Your task to perform on an android device: What's the US dollar exchange rate against the Canadian Dollar? Image 0: 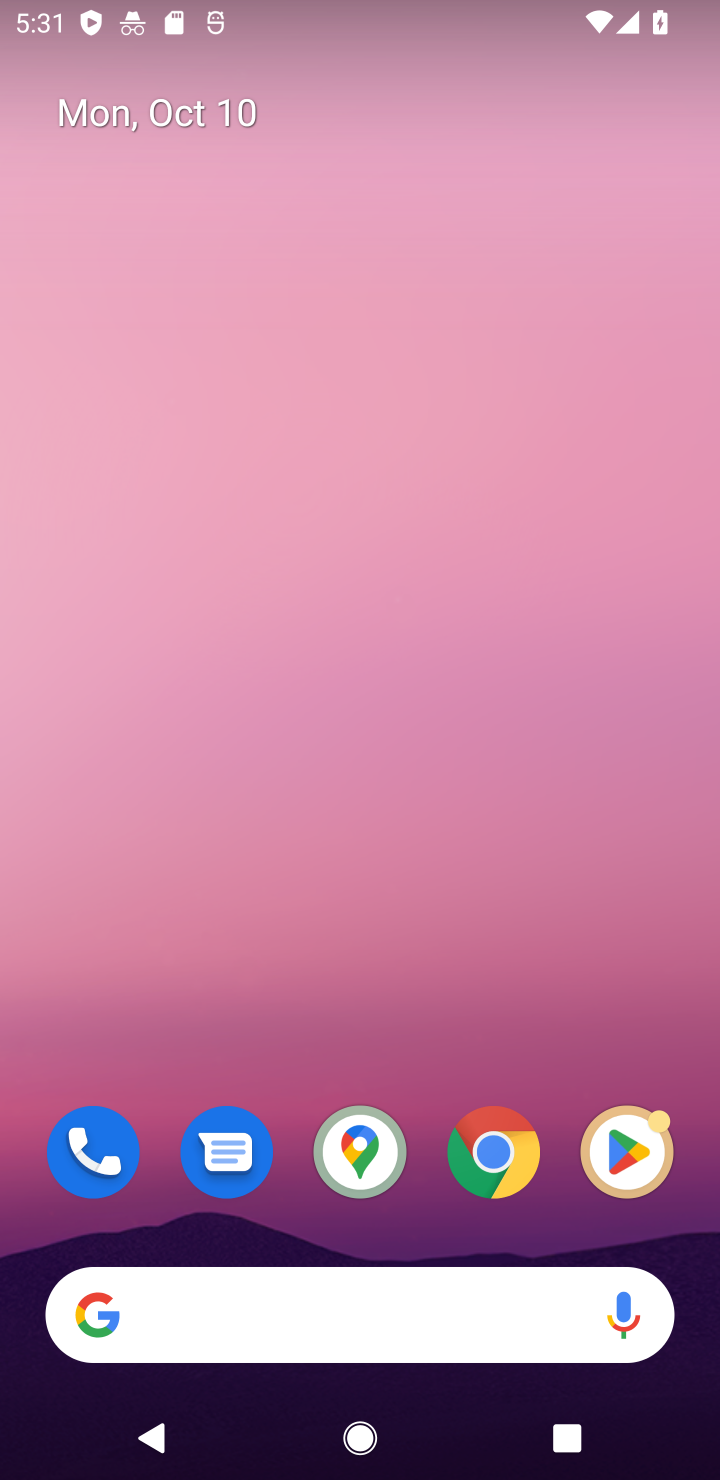
Step 0: click (502, 1157)
Your task to perform on an android device: What's the US dollar exchange rate against the Canadian Dollar? Image 1: 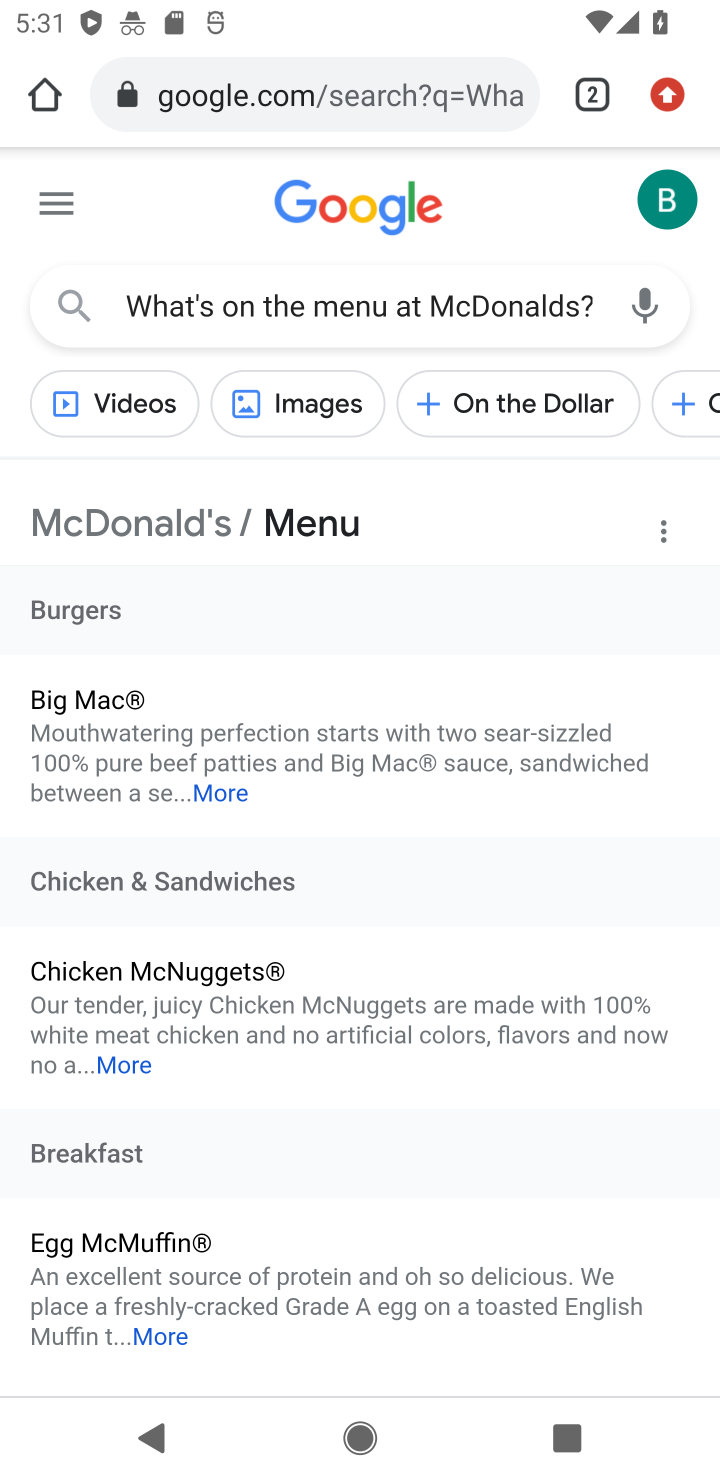
Step 1: click (466, 85)
Your task to perform on an android device: What's the US dollar exchange rate against the Canadian Dollar? Image 2: 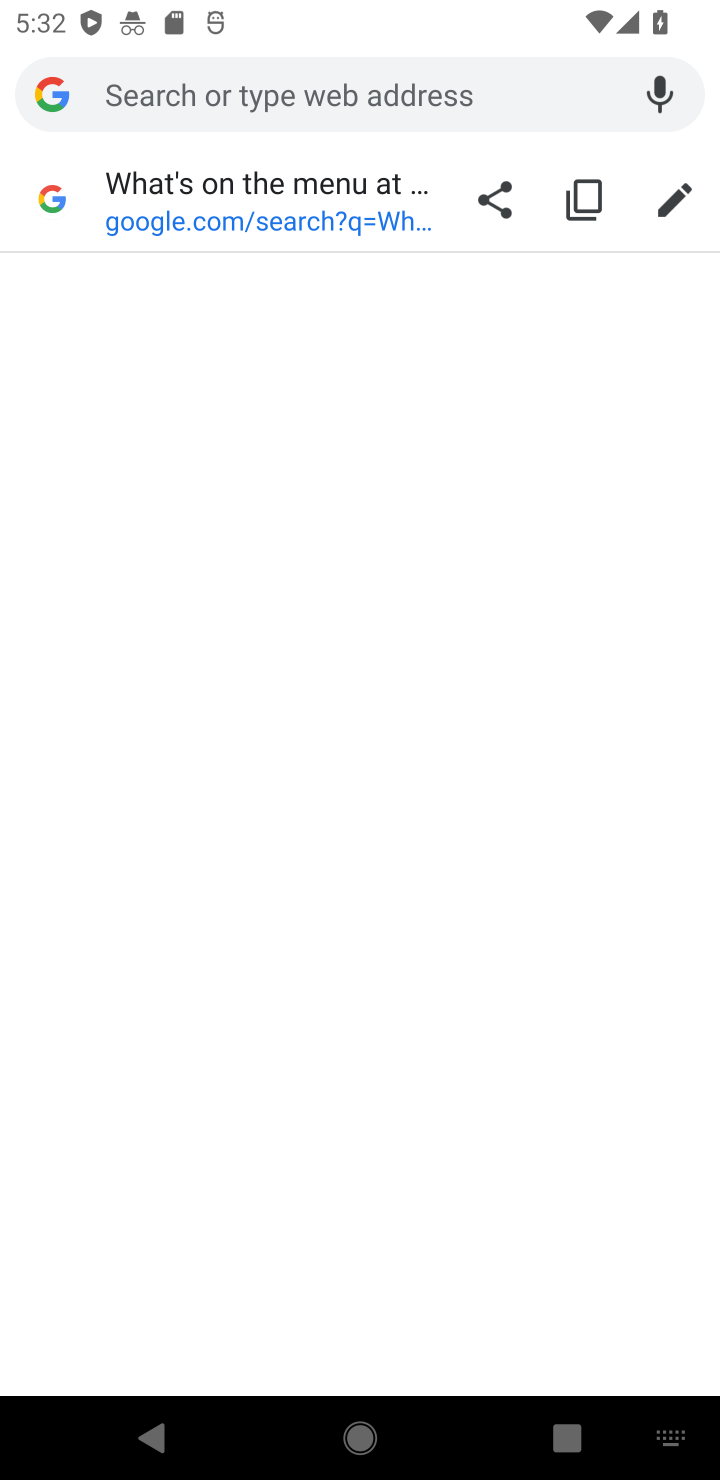
Step 2: type "What's the US dollar exchange rate against the Canadian Dollar?"
Your task to perform on an android device: What's the US dollar exchange rate against the Canadian Dollar? Image 3: 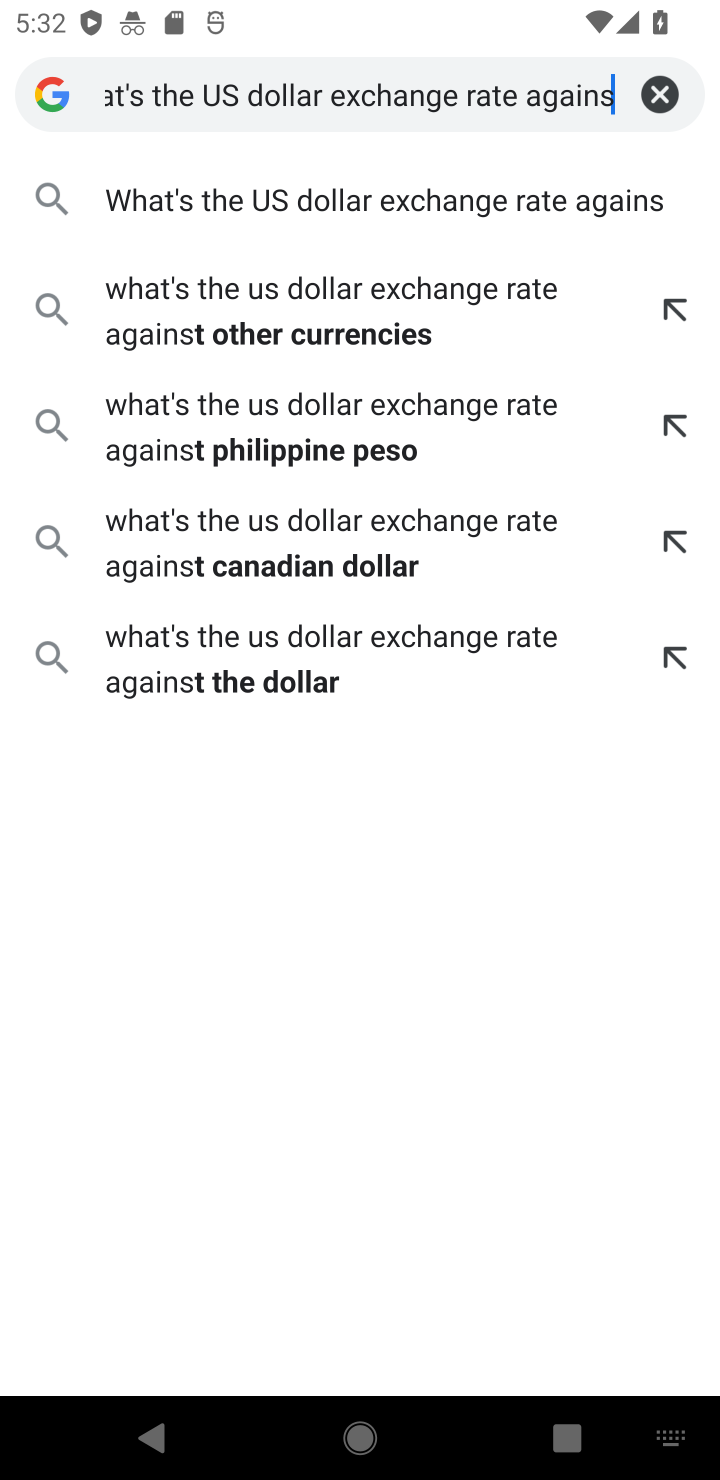
Step 3: click (404, 199)
Your task to perform on an android device: What's the US dollar exchange rate against the Canadian Dollar? Image 4: 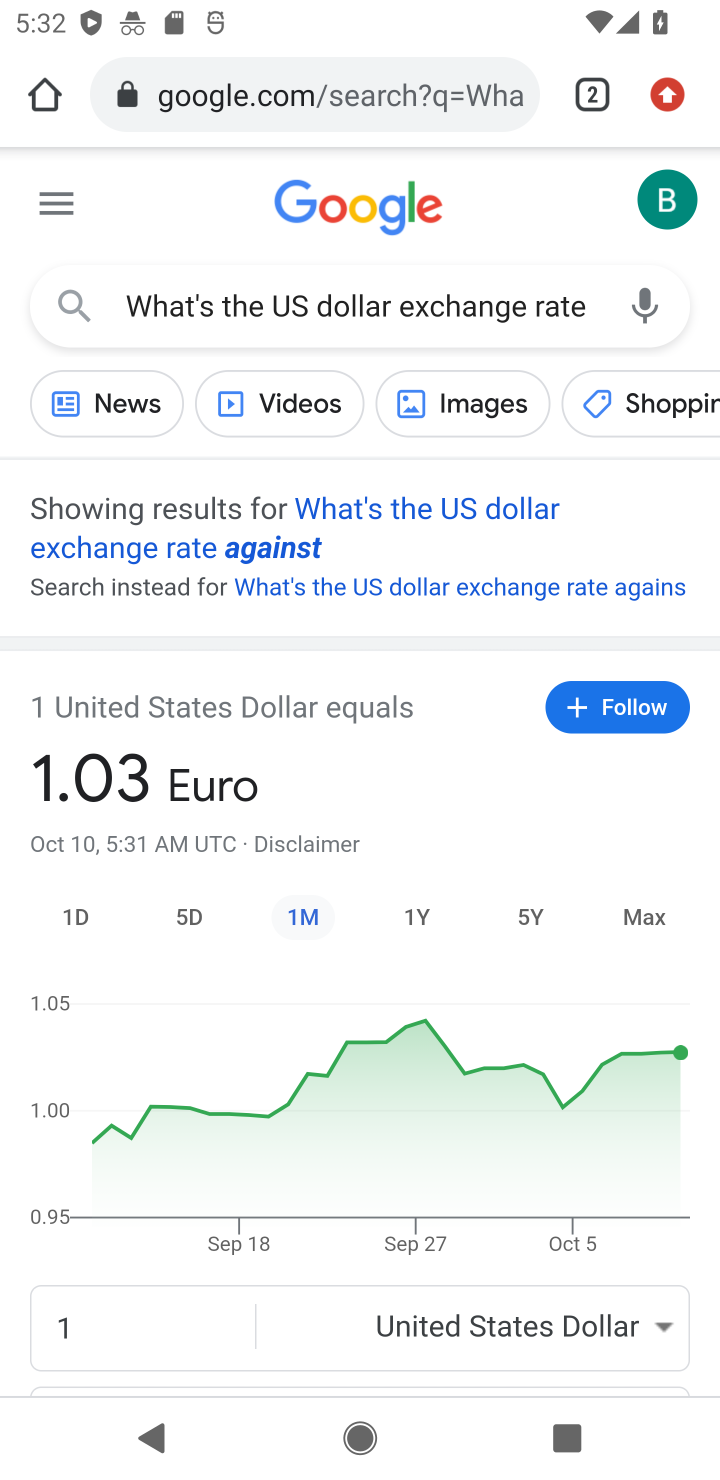
Step 4: drag from (494, 983) to (657, 516)
Your task to perform on an android device: What's the US dollar exchange rate against the Canadian Dollar? Image 5: 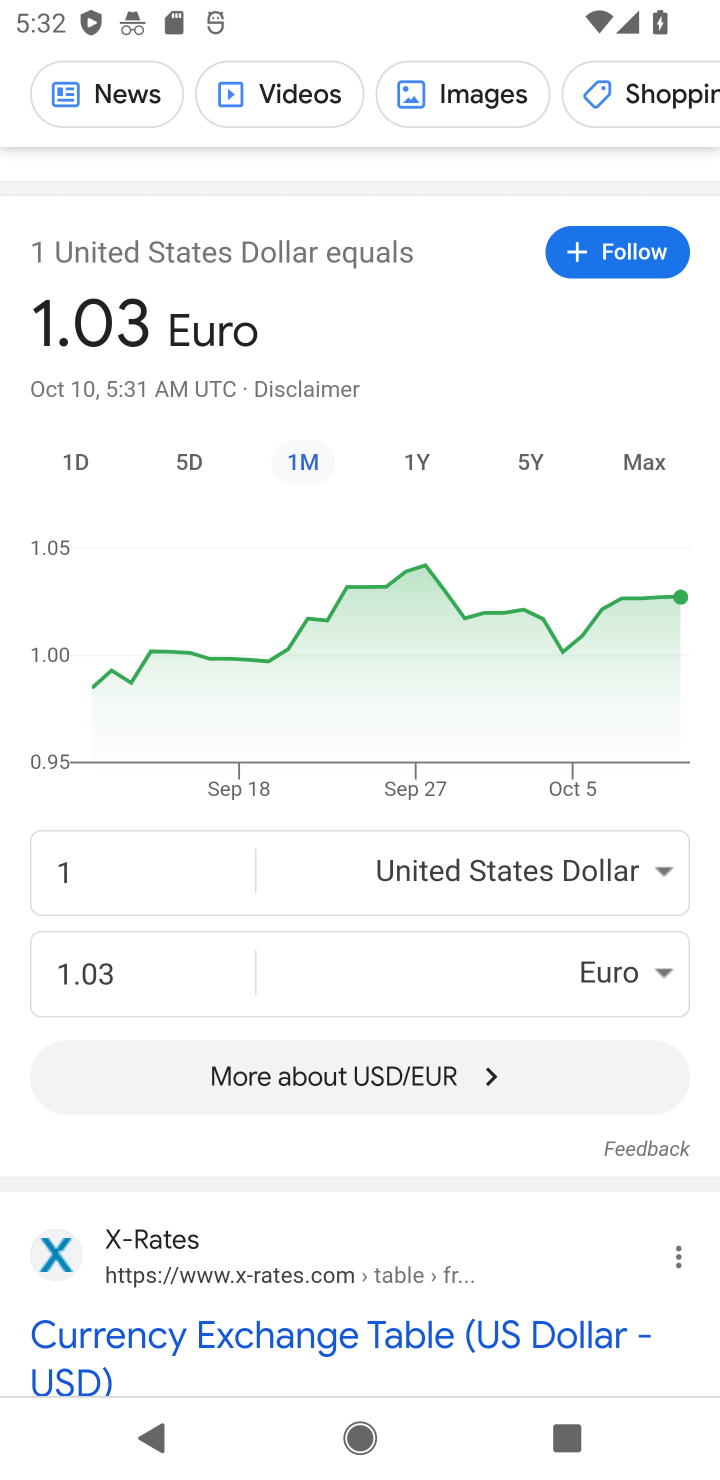
Step 5: click (611, 972)
Your task to perform on an android device: What's the US dollar exchange rate against the Canadian Dollar? Image 6: 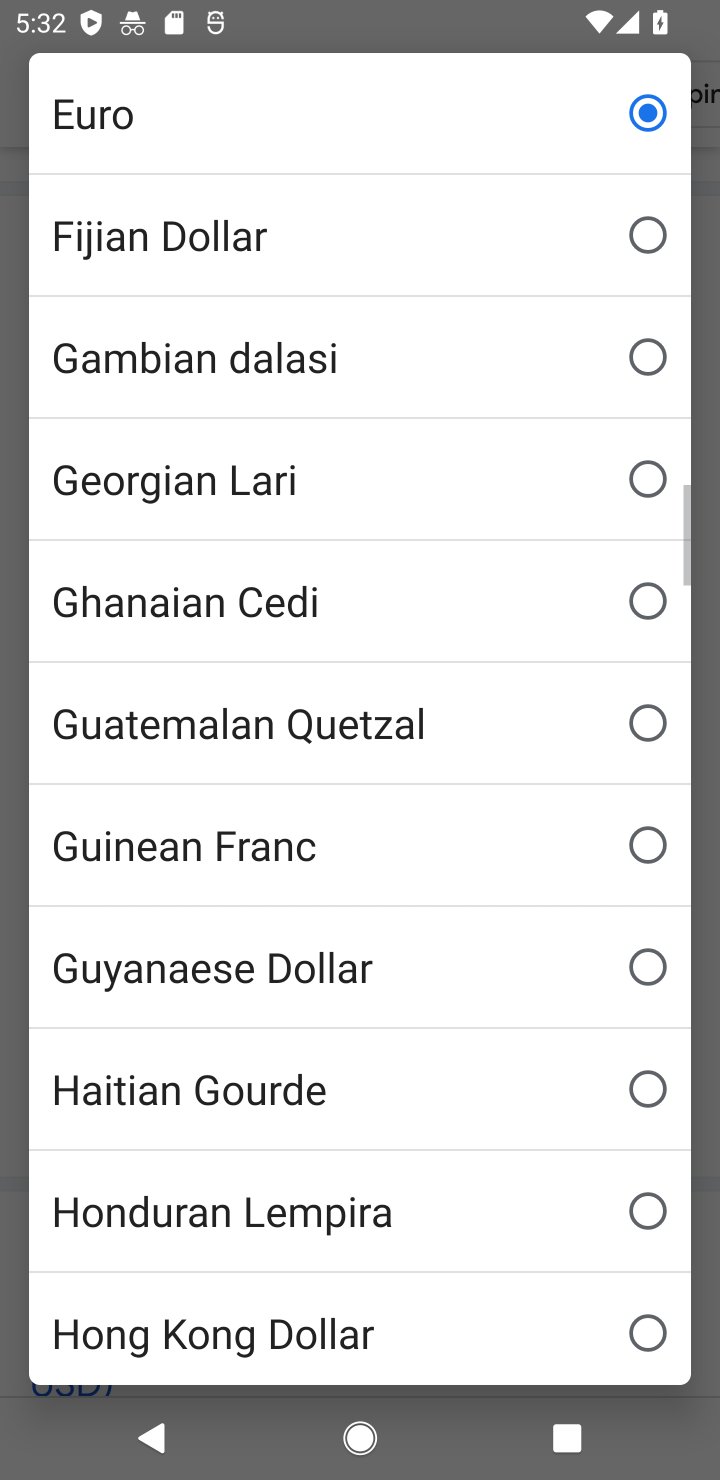
Step 6: drag from (224, 522) to (217, 1241)
Your task to perform on an android device: What's the US dollar exchange rate against the Canadian Dollar? Image 7: 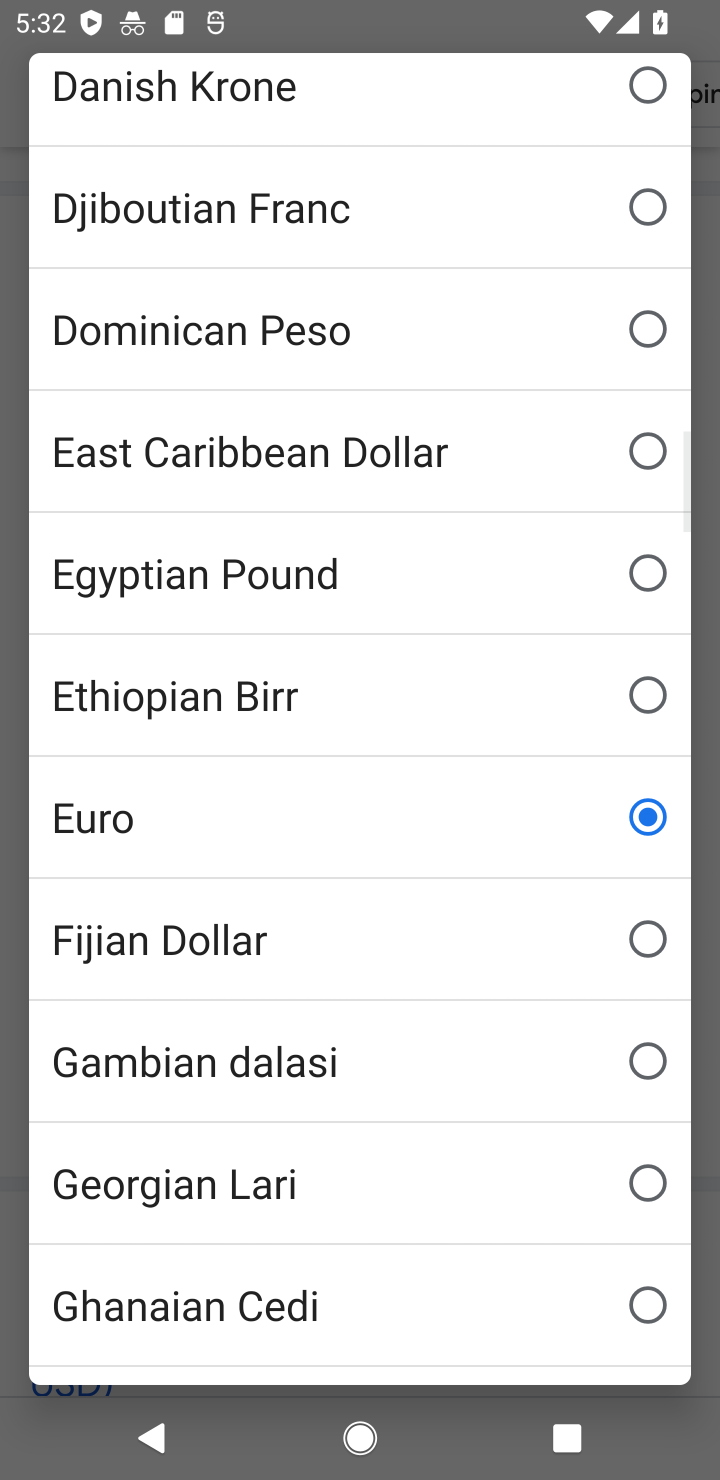
Step 7: drag from (221, 350) to (316, 964)
Your task to perform on an android device: What's the US dollar exchange rate against the Canadian Dollar? Image 8: 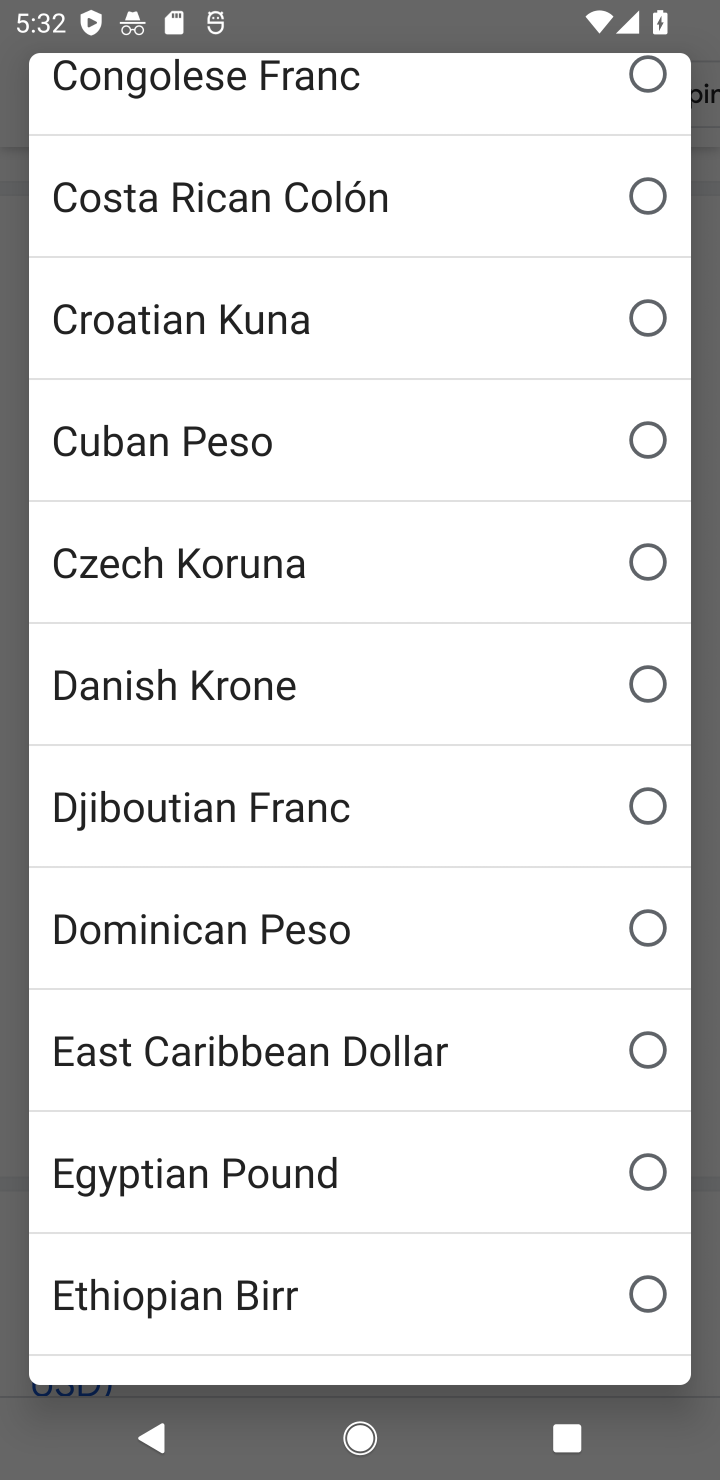
Step 8: drag from (318, 362) to (272, 862)
Your task to perform on an android device: What's the US dollar exchange rate against the Canadian Dollar? Image 9: 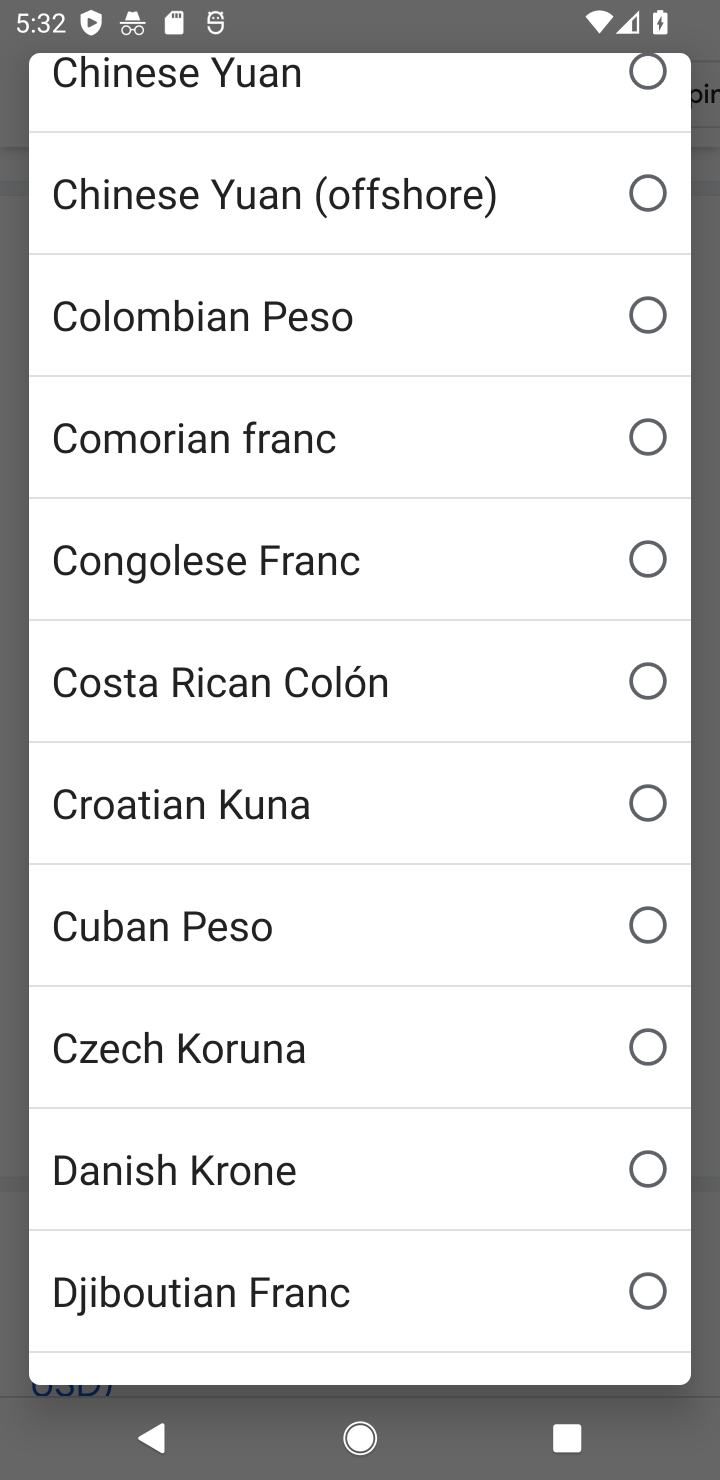
Step 9: drag from (221, 275) to (220, 800)
Your task to perform on an android device: What's the US dollar exchange rate against the Canadian Dollar? Image 10: 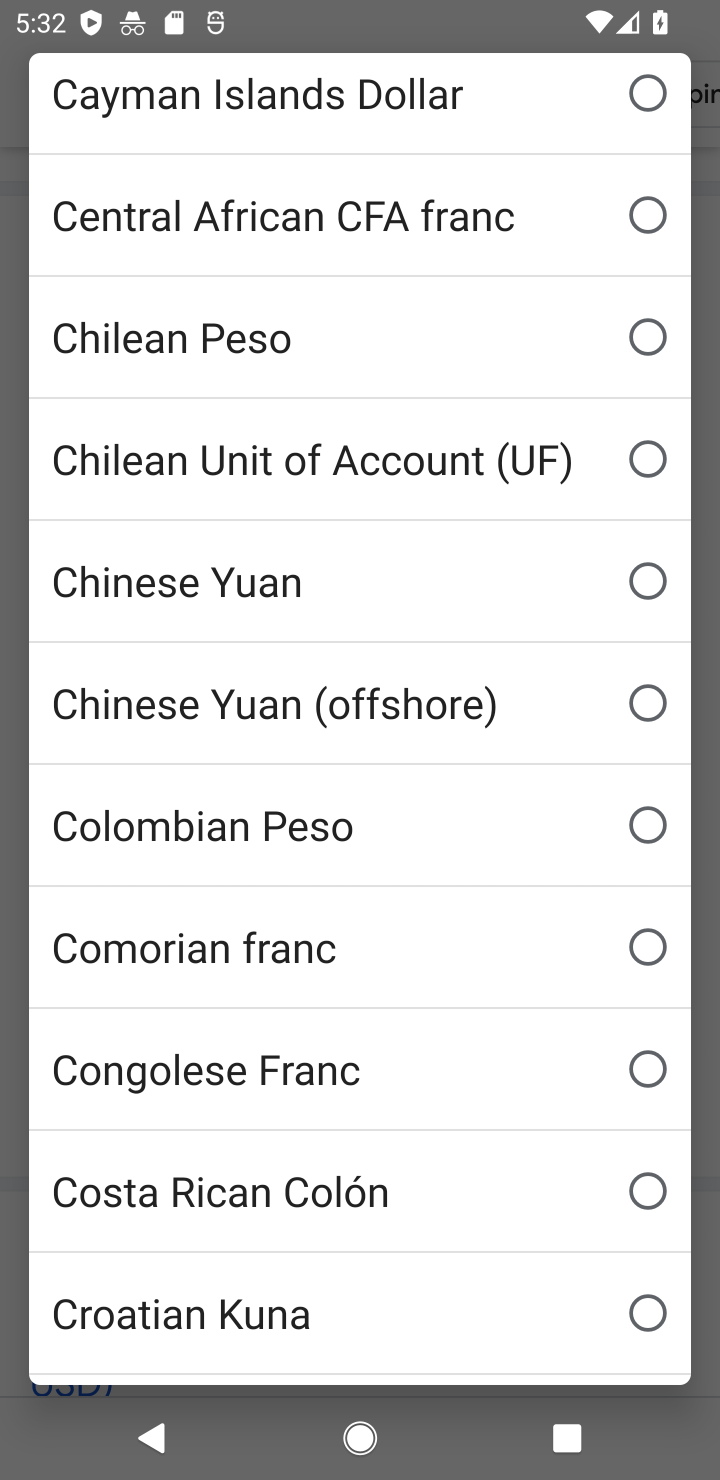
Step 10: drag from (209, 490) to (225, 832)
Your task to perform on an android device: What's the US dollar exchange rate against the Canadian Dollar? Image 11: 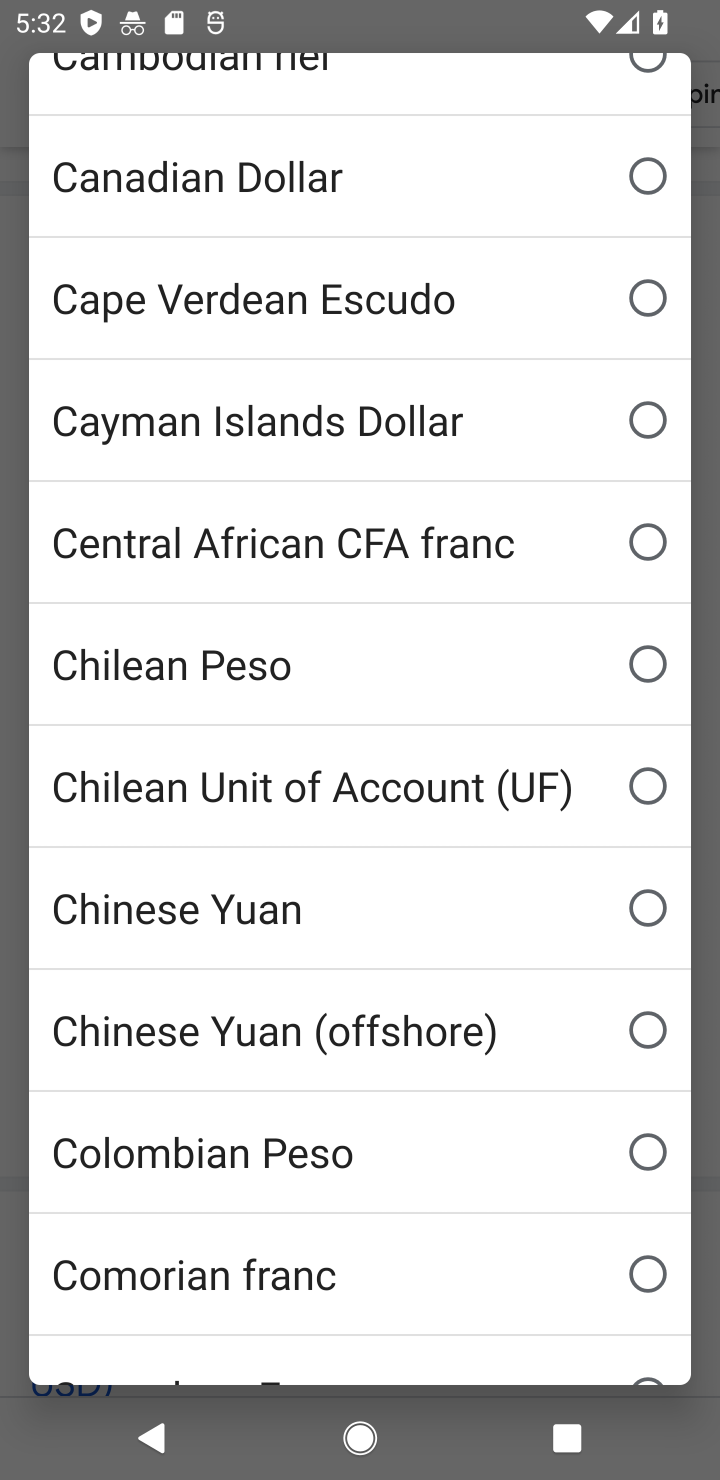
Step 11: click (637, 181)
Your task to perform on an android device: What's the US dollar exchange rate against the Canadian Dollar? Image 12: 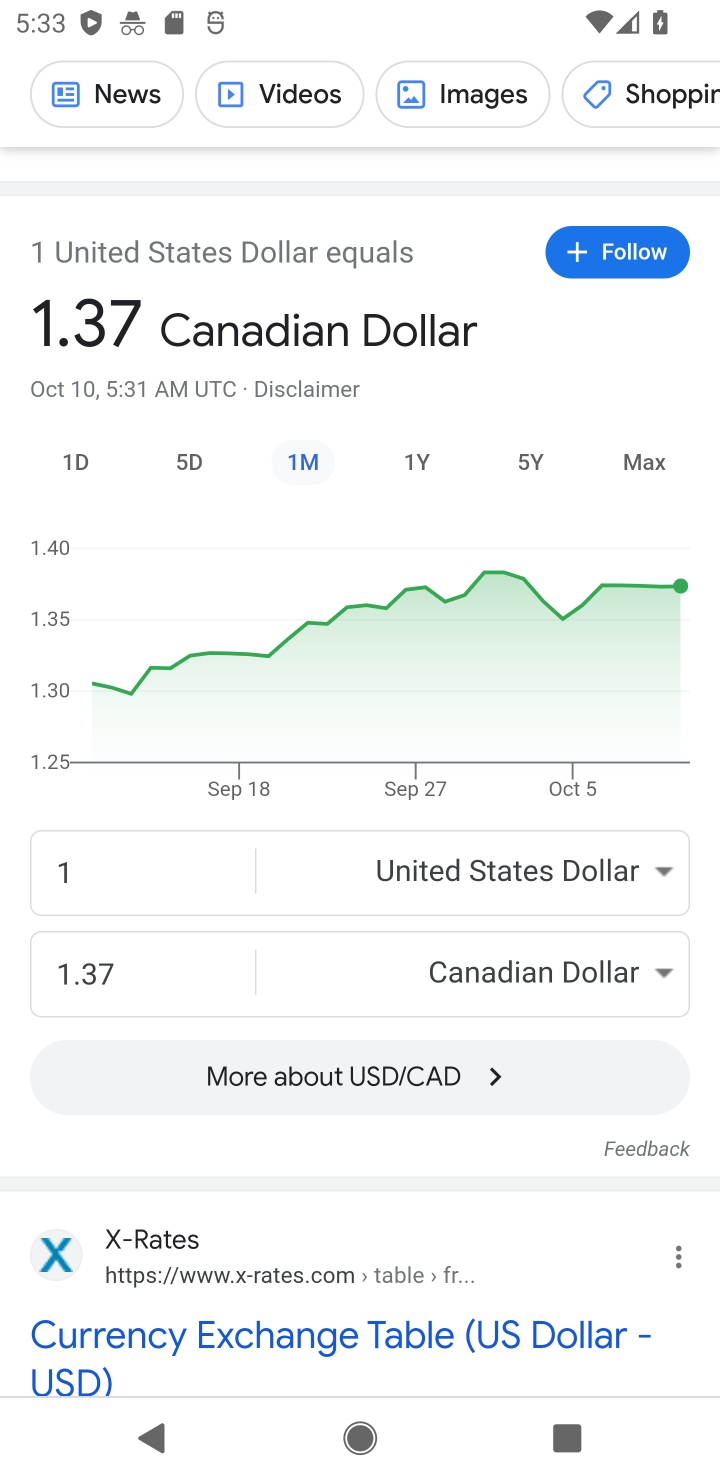
Step 12: task complete